Your task to perform on an android device: What's the latest news in cosmology? Image 0: 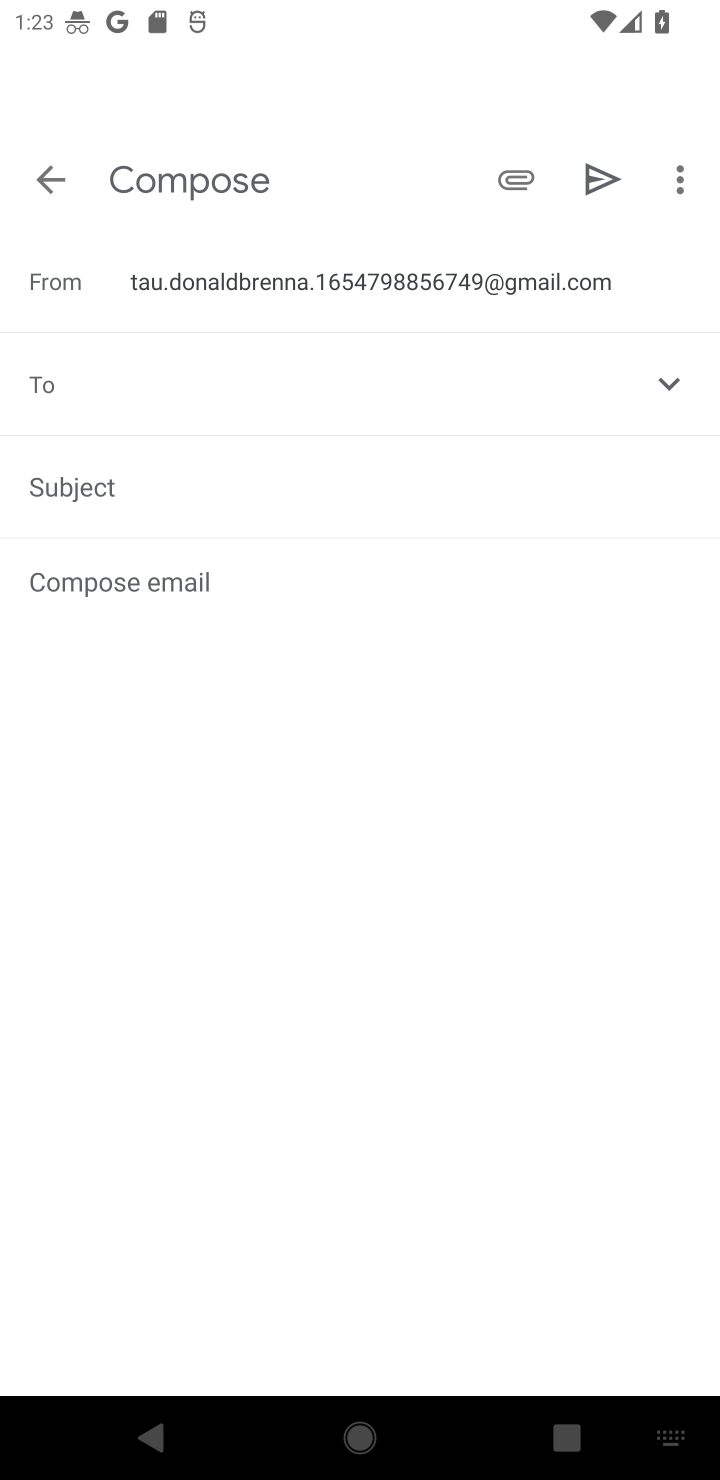
Step 0: press home button
Your task to perform on an android device: What's the latest news in cosmology? Image 1: 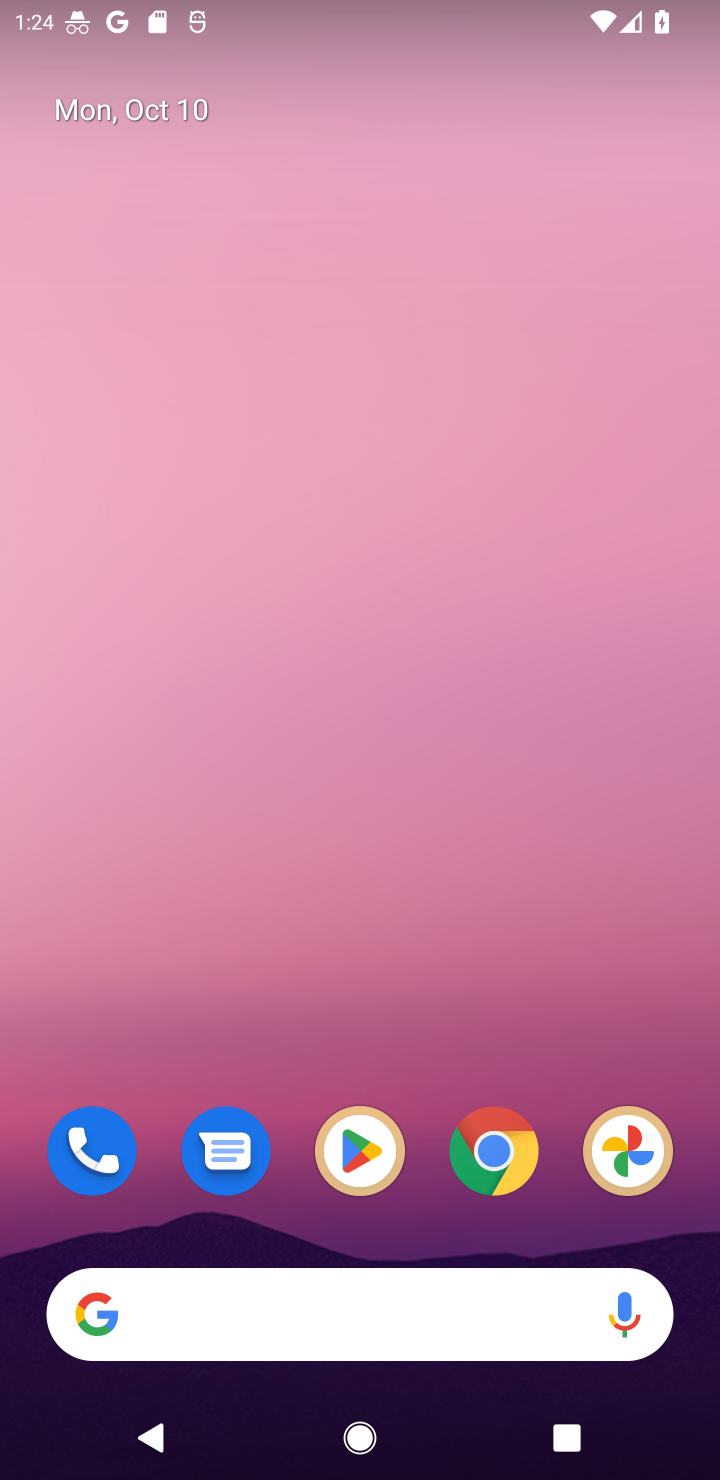
Step 1: click (365, 1305)
Your task to perform on an android device: What's the latest news in cosmology? Image 2: 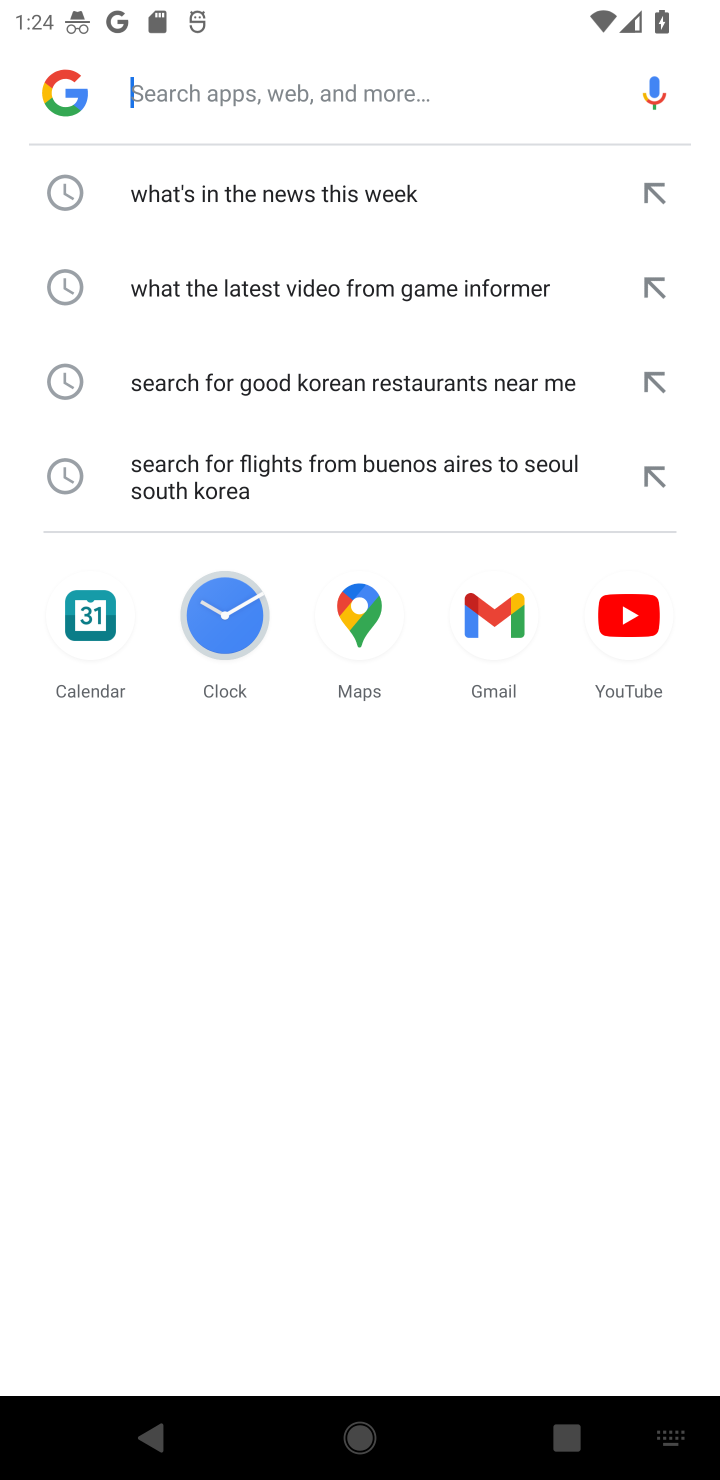
Step 2: type "What's the latest news in cosmology?"
Your task to perform on an android device: What's the latest news in cosmology? Image 3: 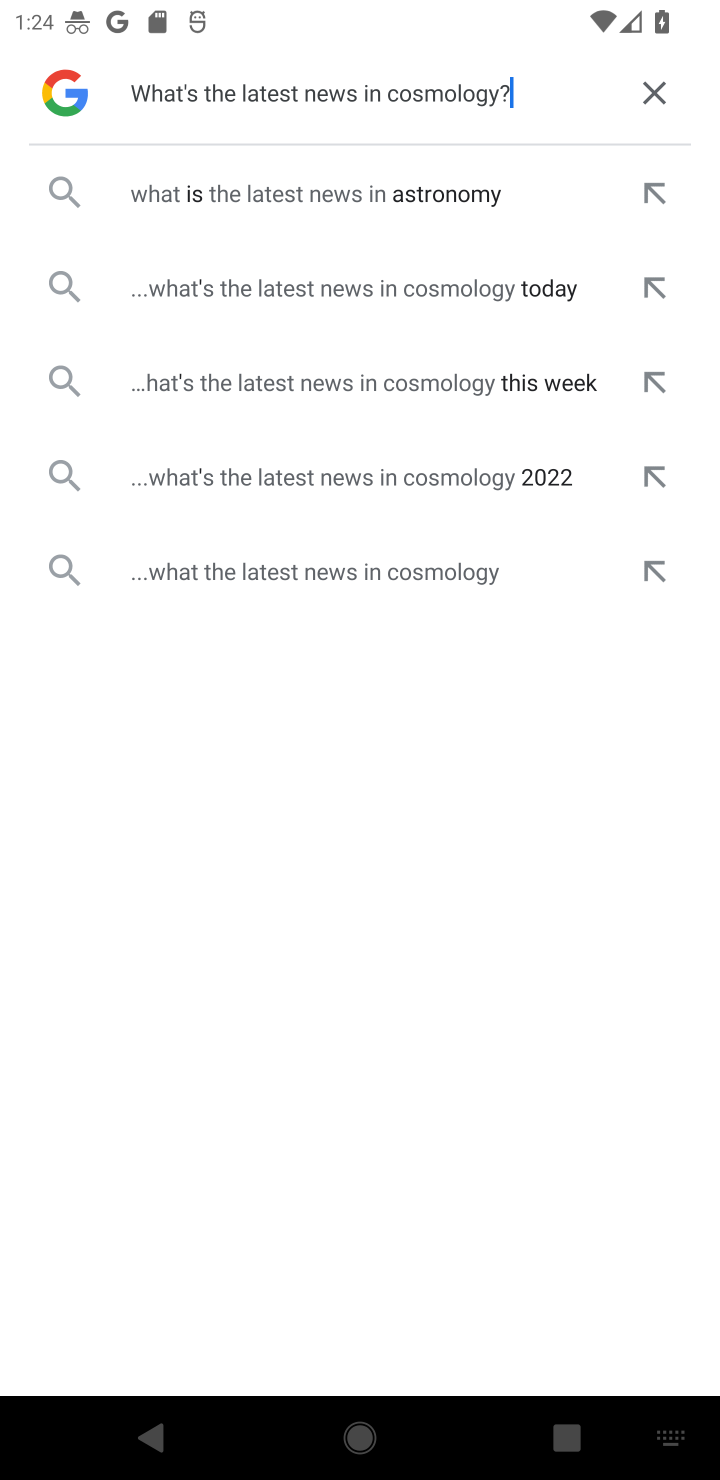
Step 3: click (375, 194)
Your task to perform on an android device: What's the latest news in cosmology? Image 4: 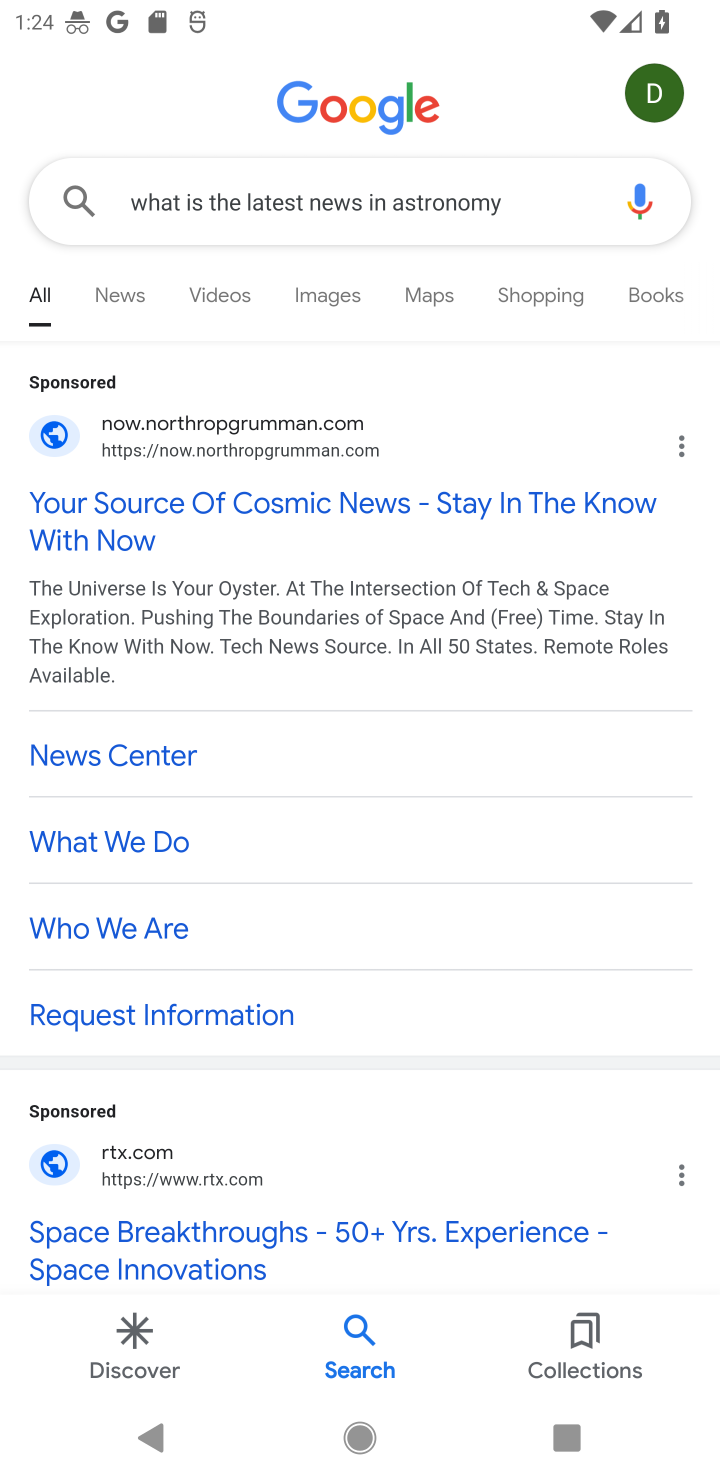
Step 4: click (353, 493)
Your task to perform on an android device: What's the latest news in cosmology? Image 5: 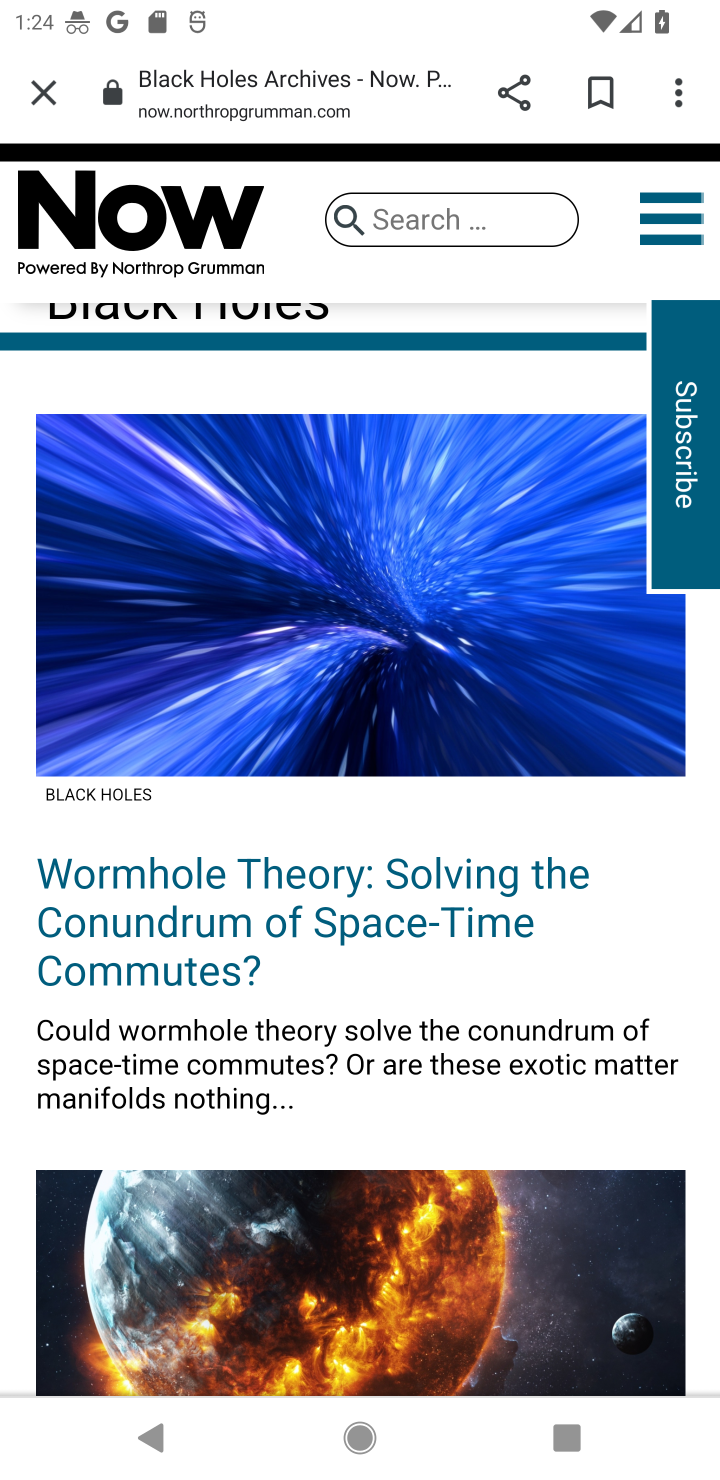
Step 5: task complete